Your task to perform on an android device: Show the shopping cart on bestbuy. Image 0: 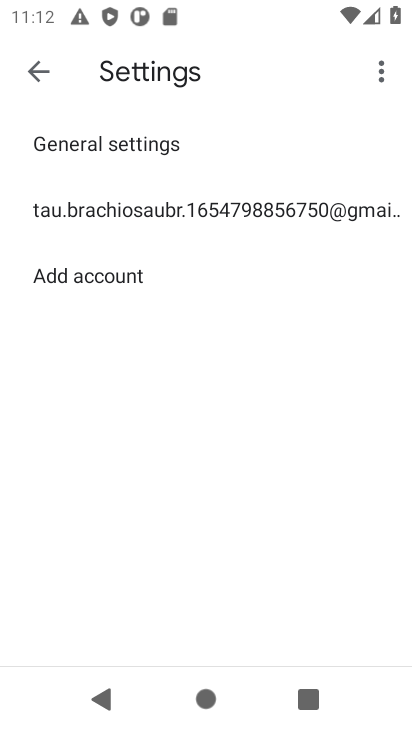
Step 0: press home button
Your task to perform on an android device: Show the shopping cart on bestbuy. Image 1: 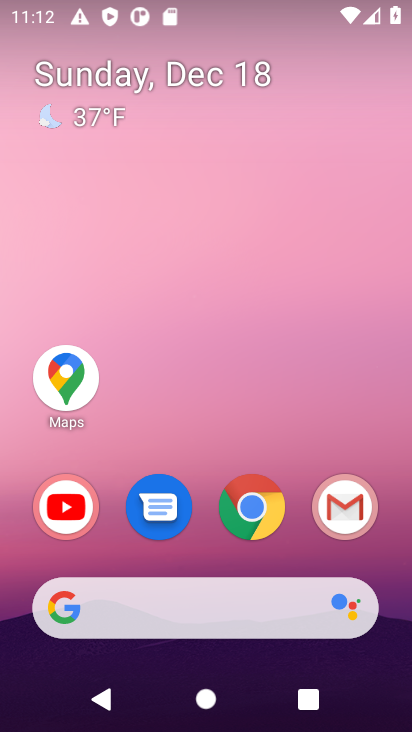
Step 1: click (256, 507)
Your task to perform on an android device: Show the shopping cart on bestbuy. Image 2: 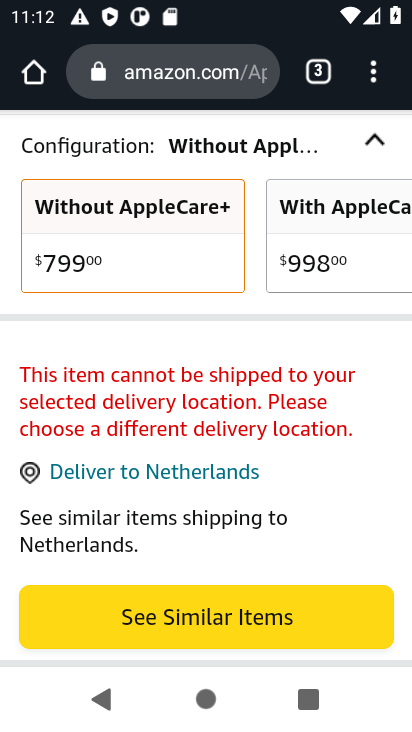
Step 2: click (157, 80)
Your task to perform on an android device: Show the shopping cart on bestbuy. Image 3: 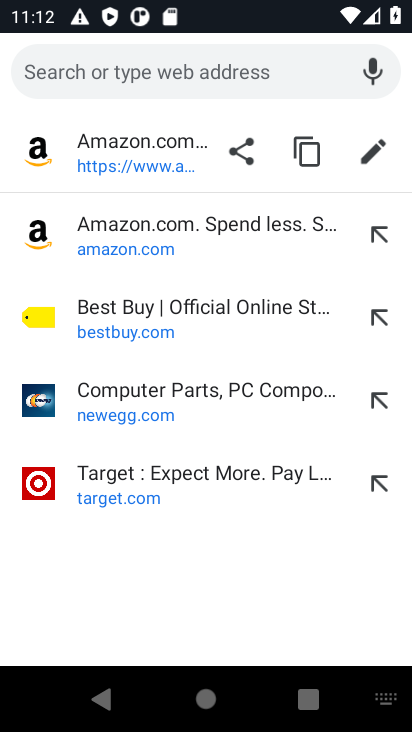
Step 3: click (92, 331)
Your task to perform on an android device: Show the shopping cart on bestbuy. Image 4: 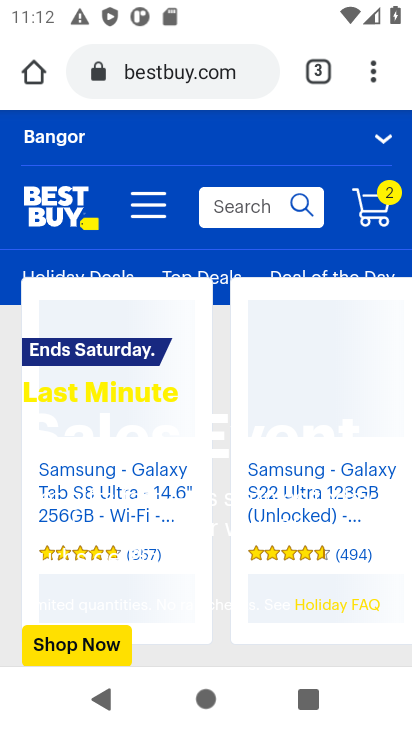
Step 4: click (367, 212)
Your task to perform on an android device: Show the shopping cart on bestbuy. Image 5: 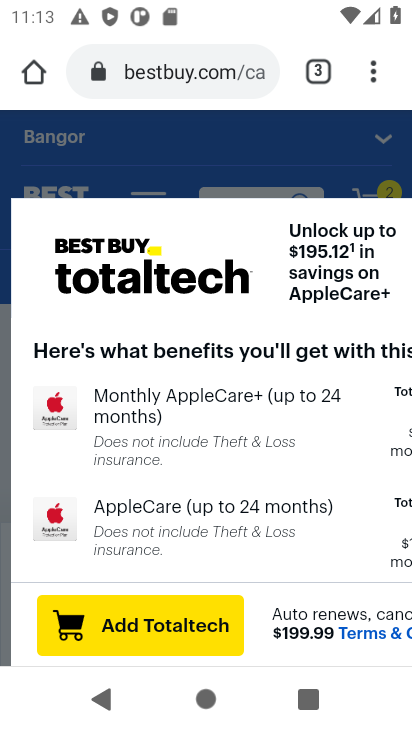
Step 5: drag from (222, 501) to (212, 345)
Your task to perform on an android device: Show the shopping cart on bestbuy. Image 6: 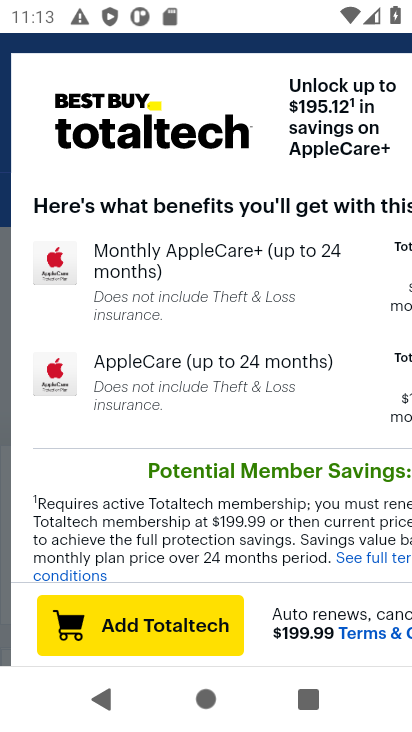
Step 6: drag from (296, 193) to (281, 384)
Your task to perform on an android device: Show the shopping cart on bestbuy. Image 7: 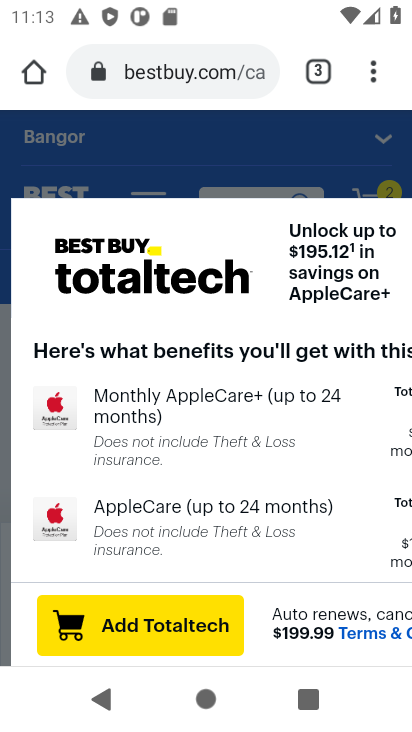
Step 7: click (232, 159)
Your task to perform on an android device: Show the shopping cart on bestbuy. Image 8: 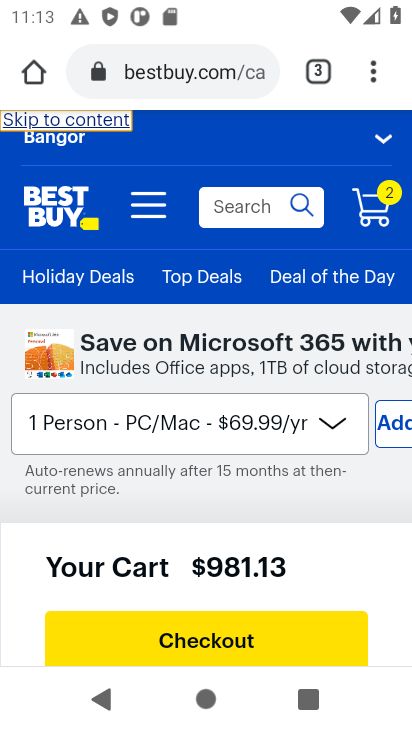
Step 8: task complete